Your task to perform on an android device: Go to Google maps Image 0: 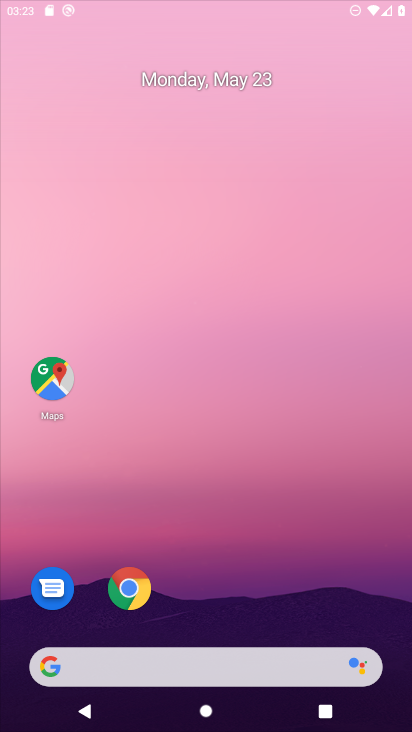
Step 0: click (220, 103)
Your task to perform on an android device: Go to Google maps Image 1: 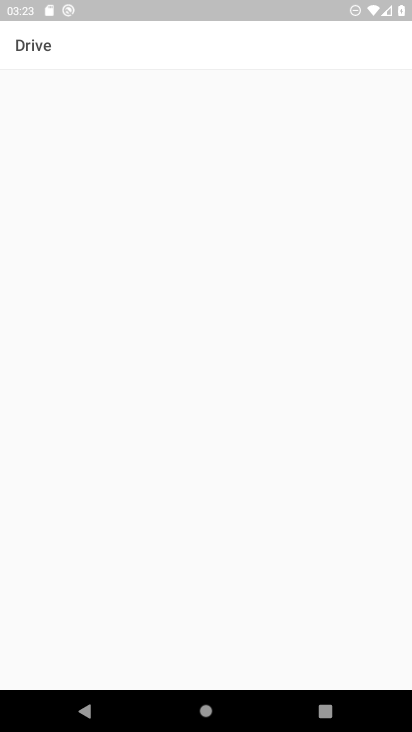
Step 1: press home button
Your task to perform on an android device: Go to Google maps Image 2: 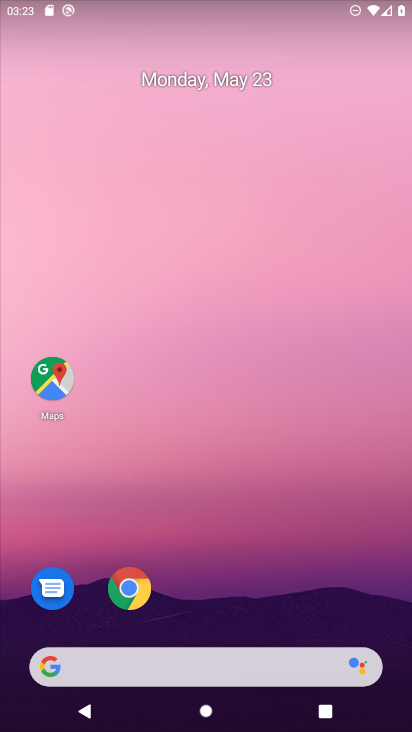
Step 2: drag from (226, 718) to (223, 85)
Your task to perform on an android device: Go to Google maps Image 3: 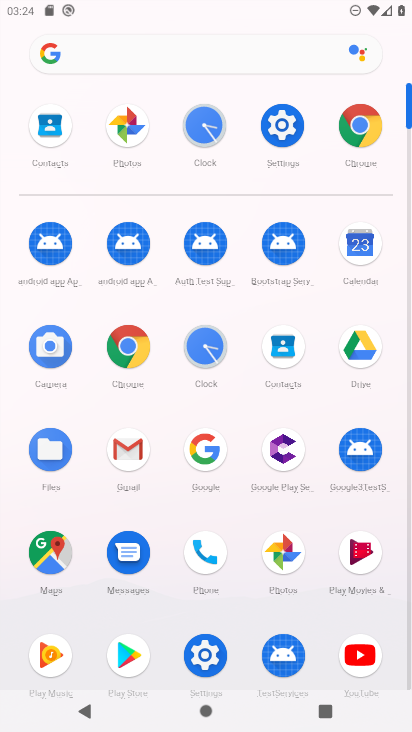
Step 3: click (43, 543)
Your task to perform on an android device: Go to Google maps Image 4: 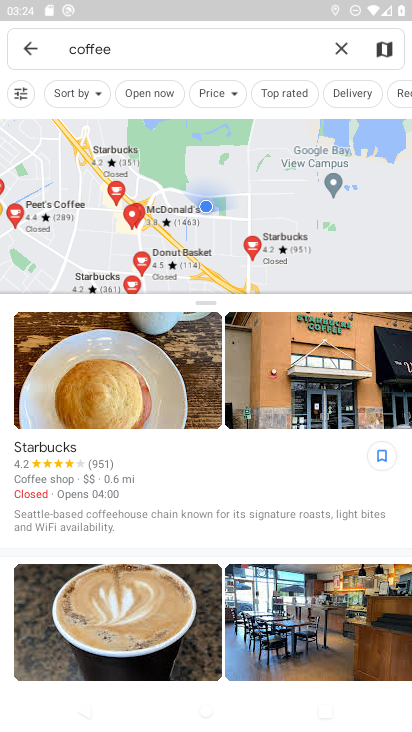
Step 4: task complete